Your task to perform on an android device: turn off picture-in-picture Image 0: 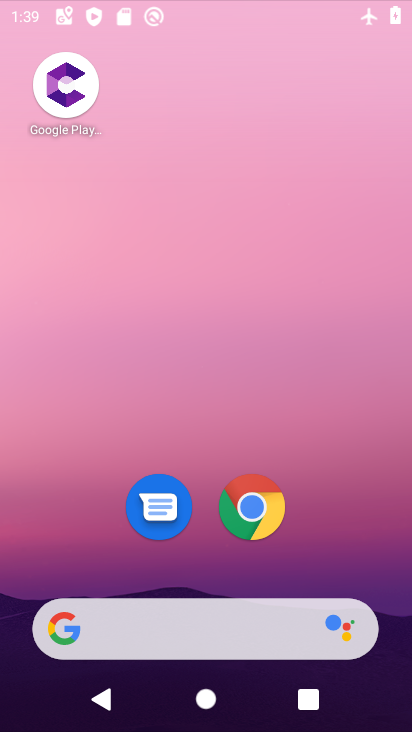
Step 0: click (238, 166)
Your task to perform on an android device: turn off picture-in-picture Image 1: 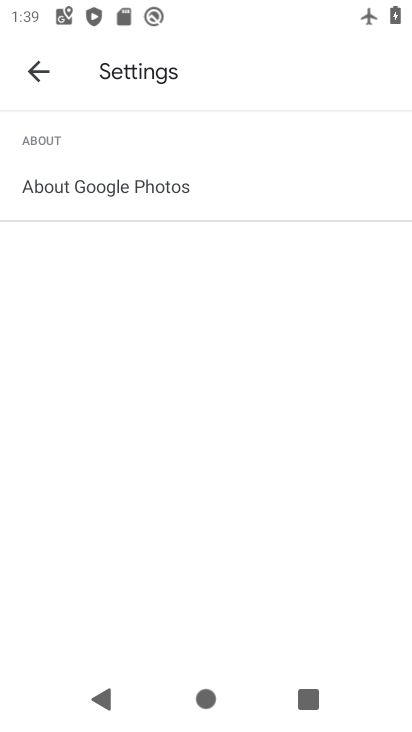
Step 1: click (32, 74)
Your task to perform on an android device: turn off picture-in-picture Image 2: 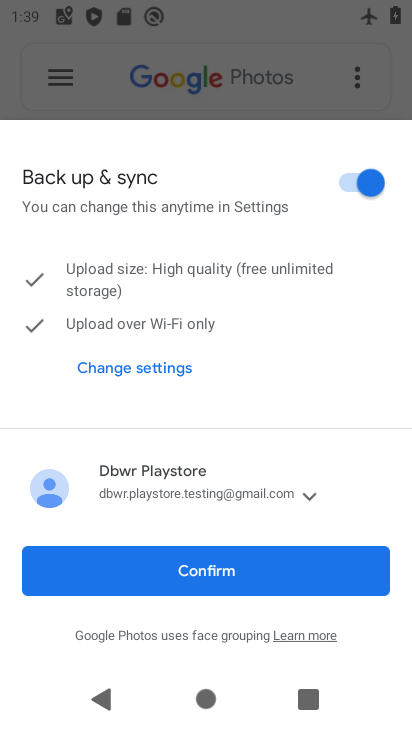
Step 2: press home button
Your task to perform on an android device: turn off picture-in-picture Image 3: 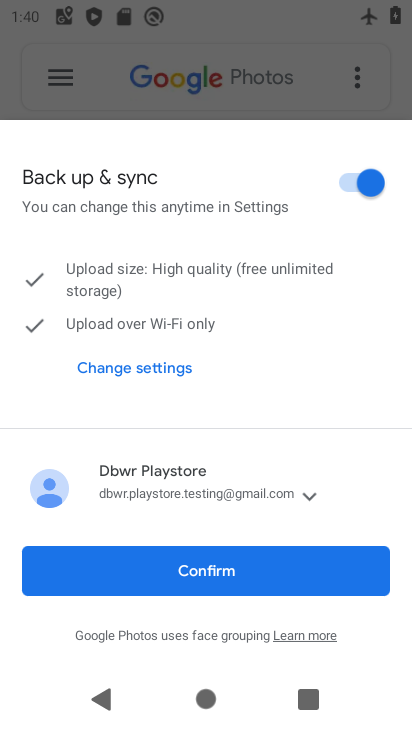
Step 3: press home button
Your task to perform on an android device: turn off picture-in-picture Image 4: 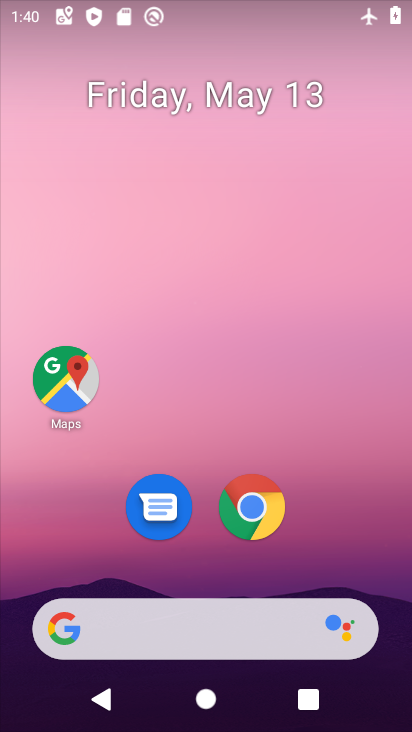
Step 4: drag from (340, 612) to (155, 120)
Your task to perform on an android device: turn off picture-in-picture Image 5: 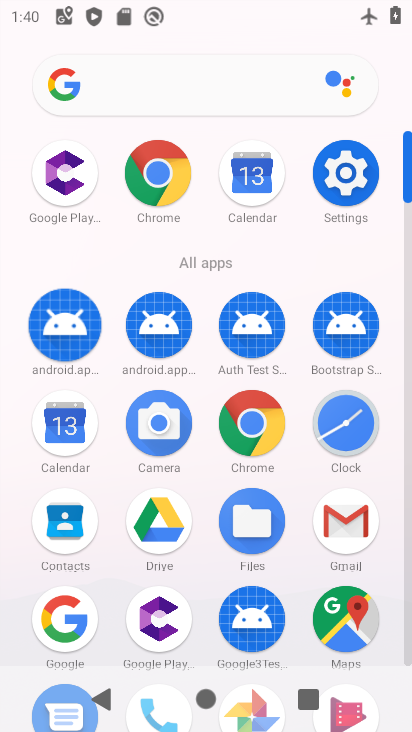
Step 5: click (247, 423)
Your task to perform on an android device: turn off picture-in-picture Image 6: 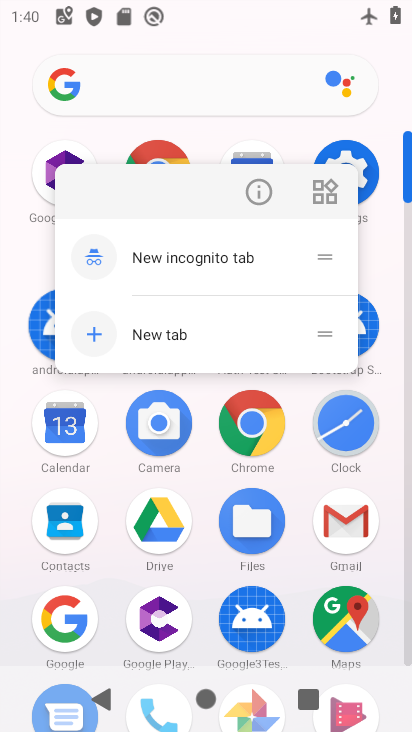
Step 6: click (260, 191)
Your task to perform on an android device: turn off picture-in-picture Image 7: 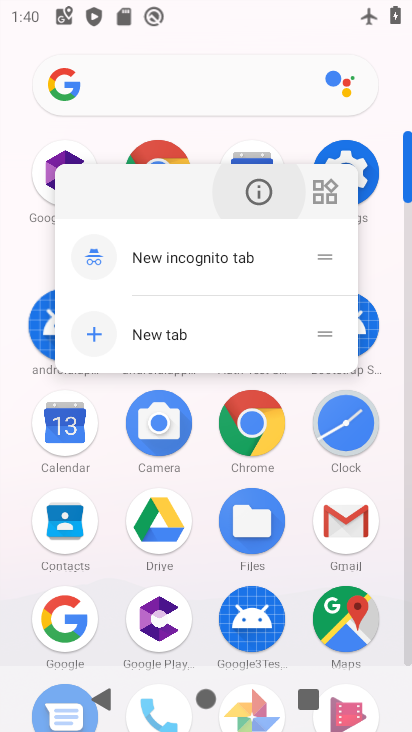
Step 7: click (260, 191)
Your task to perform on an android device: turn off picture-in-picture Image 8: 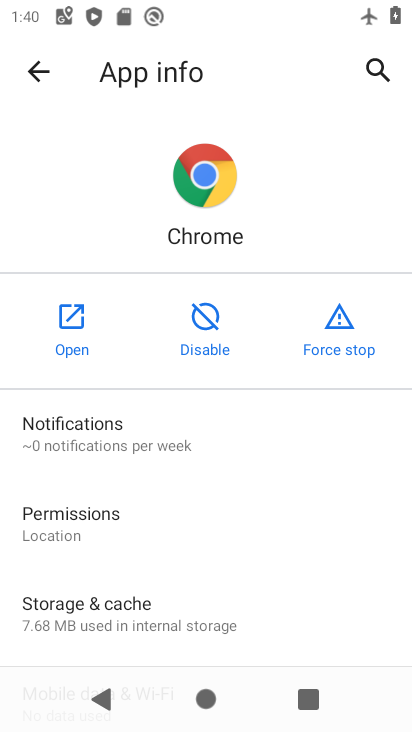
Step 8: drag from (239, 600) to (239, 183)
Your task to perform on an android device: turn off picture-in-picture Image 9: 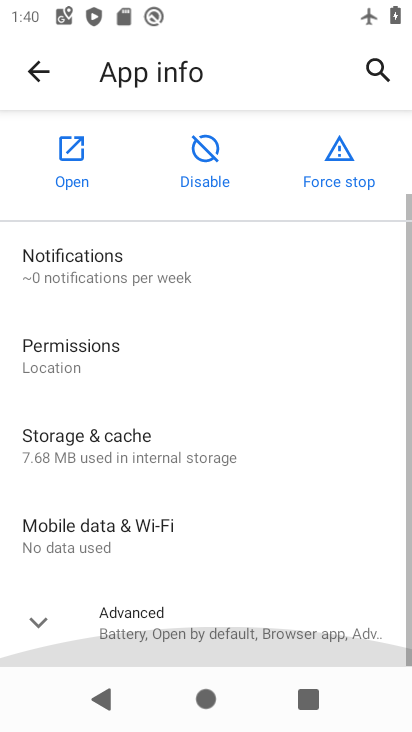
Step 9: drag from (241, 460) to (203, 164)
Your task to perform on an android device: turn off picture-in-picture Image 10: 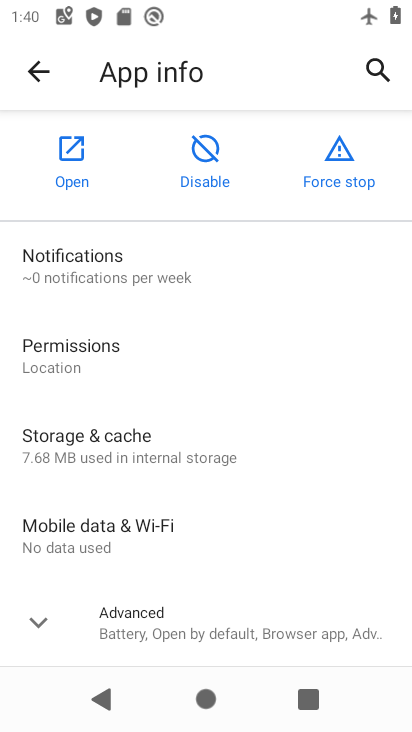
Step 10: click (153, 615)
Your task to perform on an android device: turn off picture-in-picture Image 11: 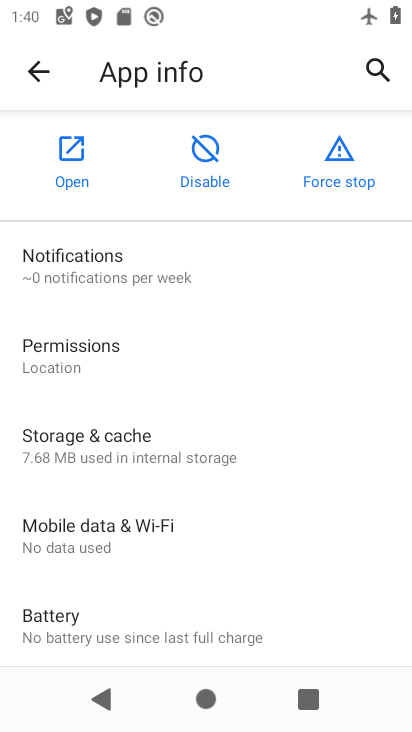
Step 11: click (67, 632)
Your task to perform on an android device: turn off picture-in-picture Image 12: 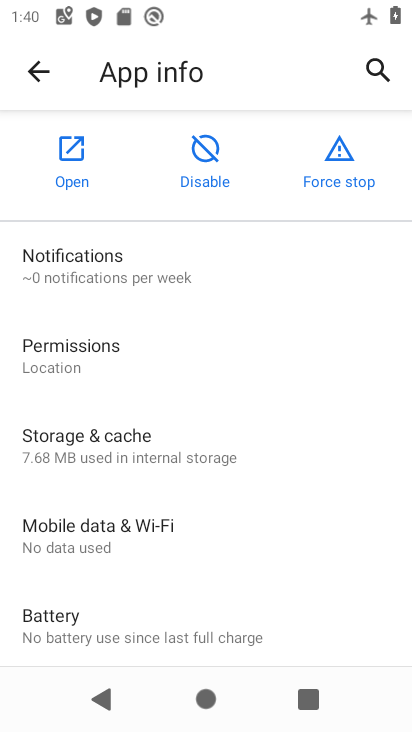
Step 12: click (67, 632)
Your task to perform on an android device: turn off picture-in-picture Image 13: 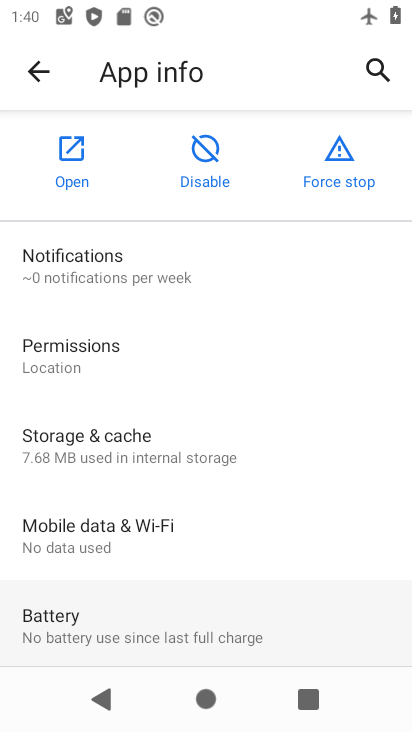
Step 13: click (67, 631)
Your task to perform on an android device: turn off picture-in-picture Image 14: 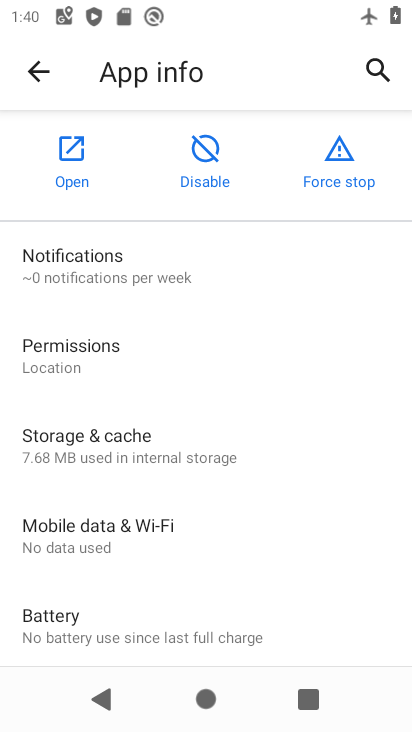
Step 14: click (68, 630)
Your task to perform on an android device: turn off picture-in-picture Image 15: 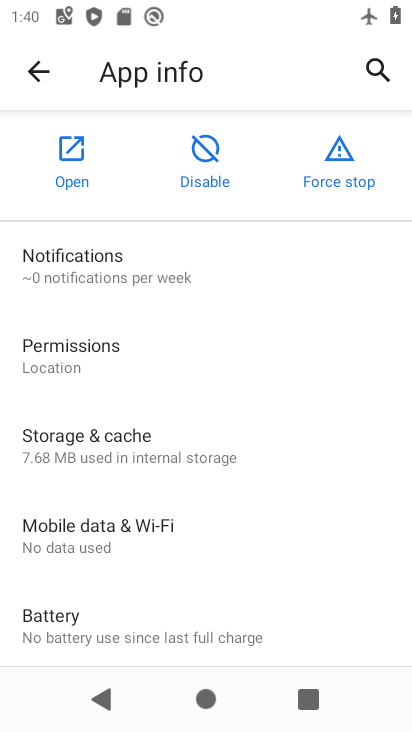
Step 15: click (68, 630)
Your task to perform on an android device: turn off picture-in-picture Image 16: 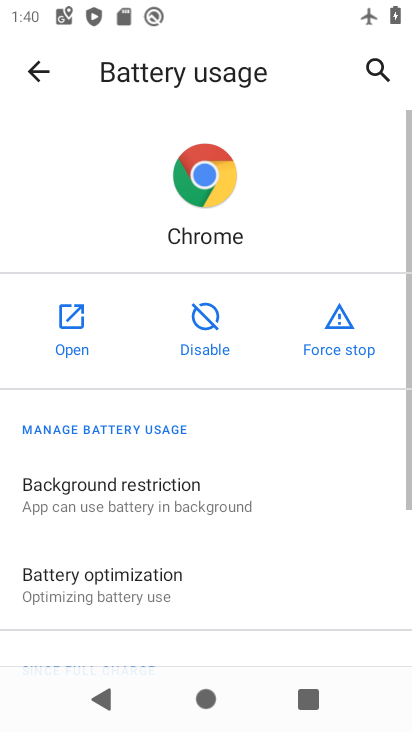
Step 16: drag from (156, 540) to (101, 188)
Your task to perform on an android device: turn off picture-in-picture Image 17: 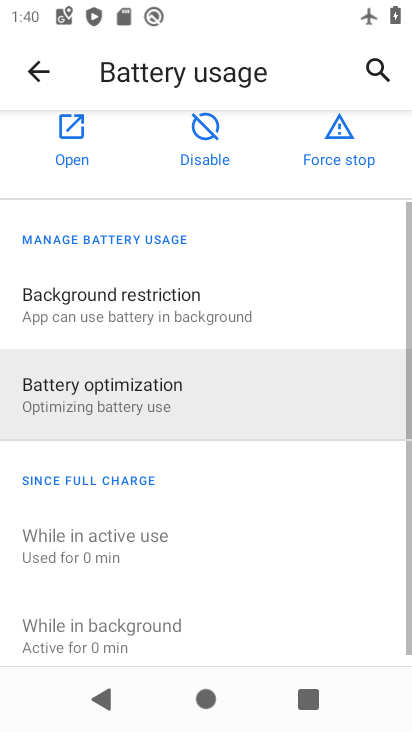
Step 17: drag from (193, 447) to (147, 189)
Your task to perform on an android device: turn off picture-in-picture Image 18: 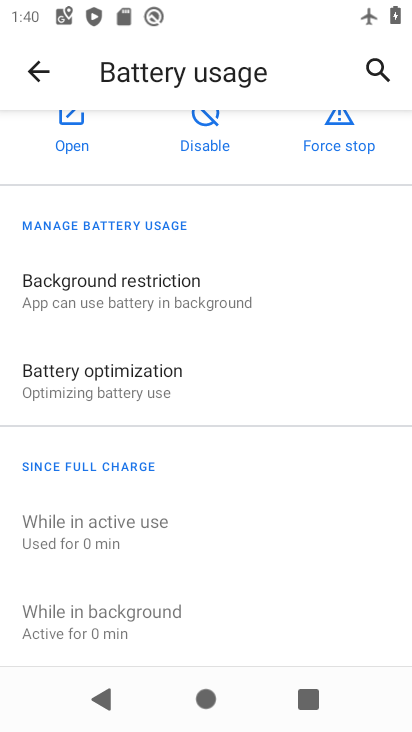
Step 18: drag from (103, 596) to (51, 271)
Your task to perform on an android device: turn off picture-in-picture Image 19: 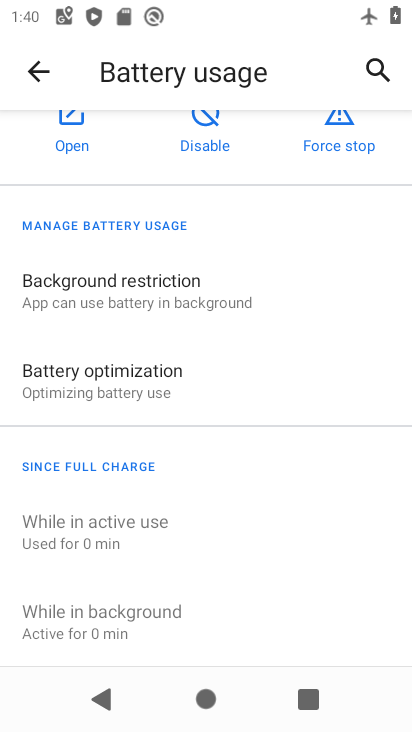
Step 19: drag from (83, 563) to (48, 202)
Your task to perform on an android device: turn off picture-in-picture Image 20: 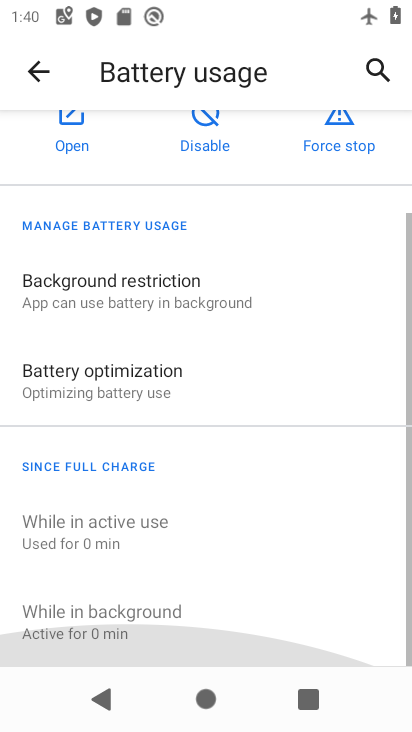
Step 20: drag from (139, 529) to (139, 175)
Your task to perform on an android device: turn off picture-in-picture Image 21: 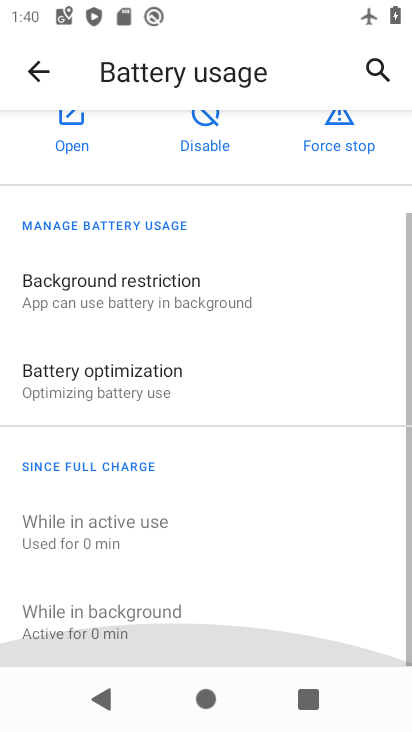
Step 21: drag from (159, 517) to (112, 241)
Your task to perform on an android device: turn off picture-in-picture Image 22: 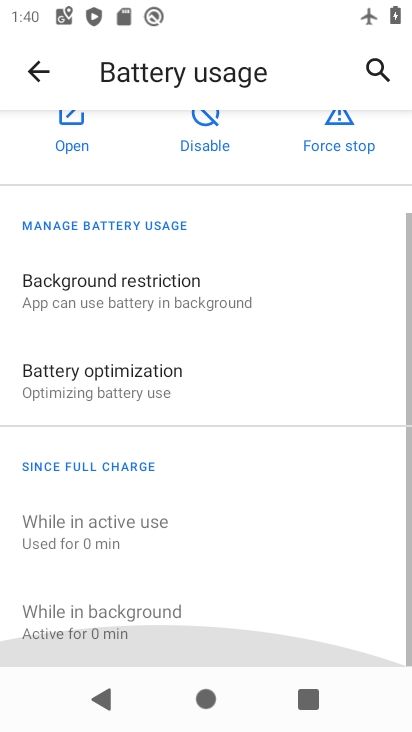
Step 22: drag from (91, 530) to (47, 146)
Your task to perform on an android device: turn off picture-in-picture Image 23: 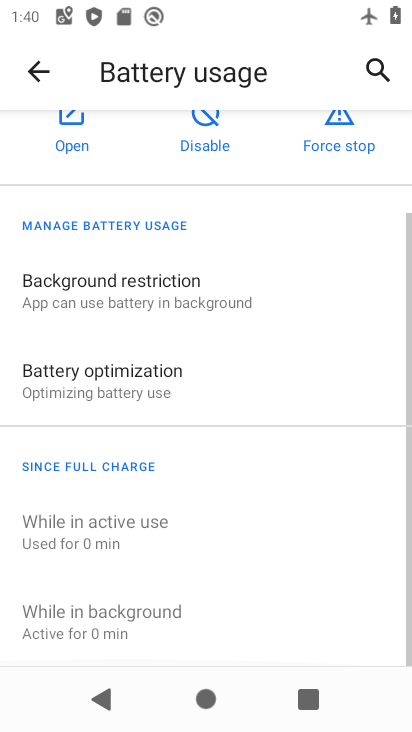
Step 23: click (32, 72)
Your task to perform on an android device: turn off picture-in-picture Image 24: 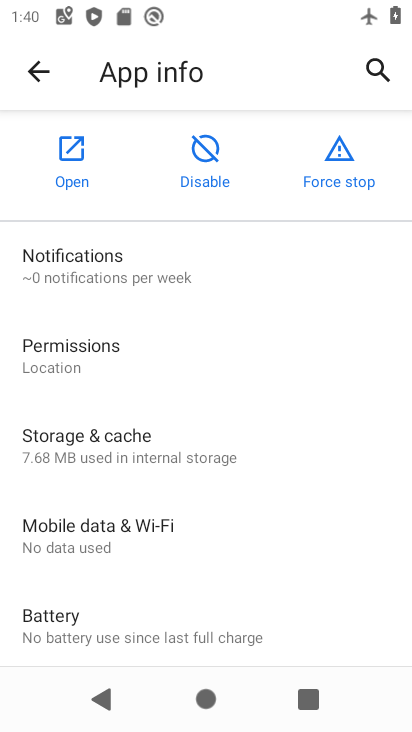
Step 24: click (34, 77)
Your task to perform on an android device: turn off picture-in-picture Image 25: 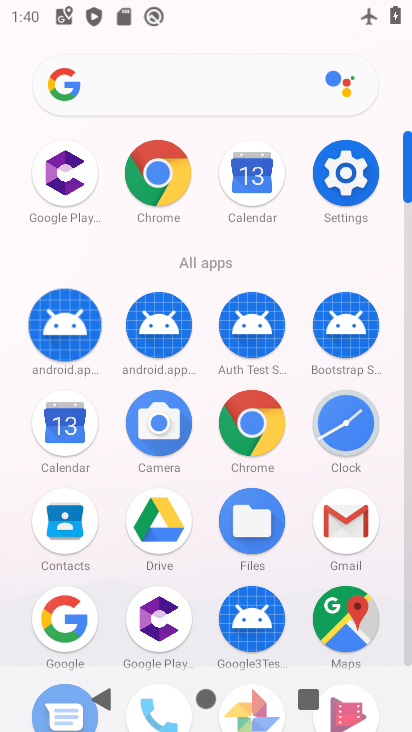
Step 25: click (160, 183)
Your task to perform on an android device: turn off picture-in-picture Image 26: 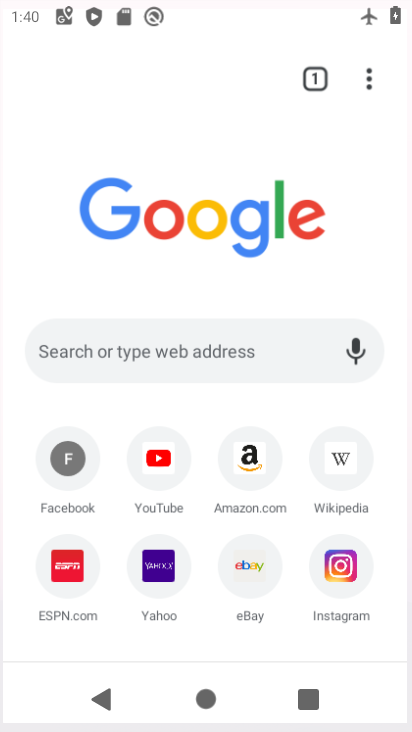
Step 26: click (160, 183)
Your task to perform on an android device: turn off picture-in-picture Image 27: 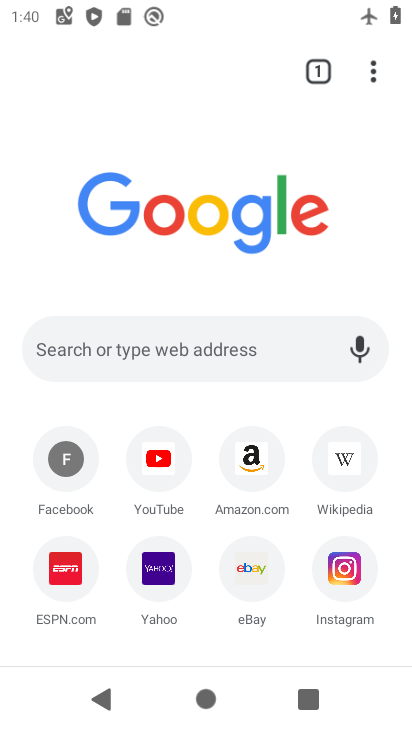
Step 27: press home button
Your task to perform on an android device: turn off picture-in-picture Image 28: 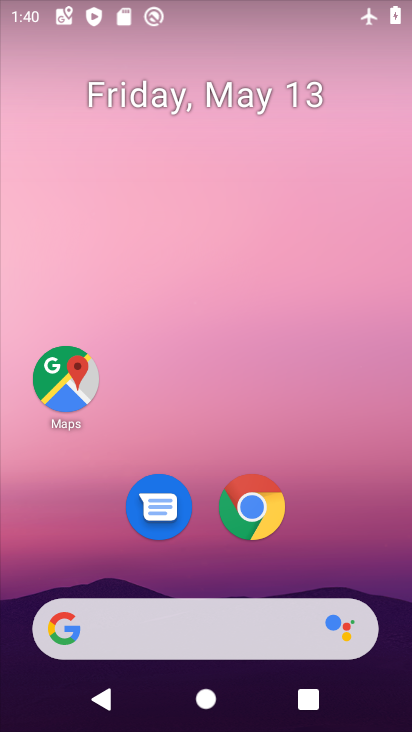
Step 28: drag from (319, 578) to (252, 252)
Your task to perform on an android device: turn off picture-in-picture Image 29: 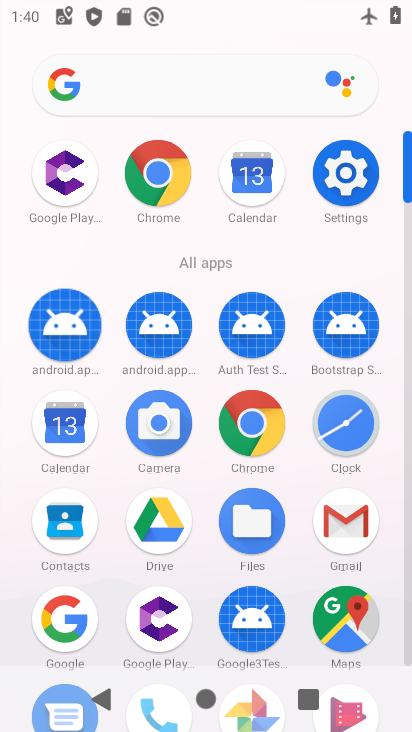
Step 29: drag from (149, 180) to (251, 403)
Your task to perform on an android device: turn off picture-in-picture Image 30: 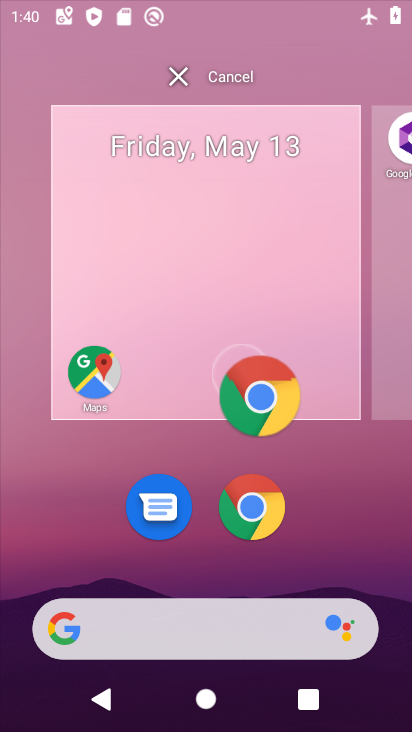
Step 30: drag from (252, 402) to (258, 141)
Your task to perform on an android device: turn off picture-in-picture Image 31: 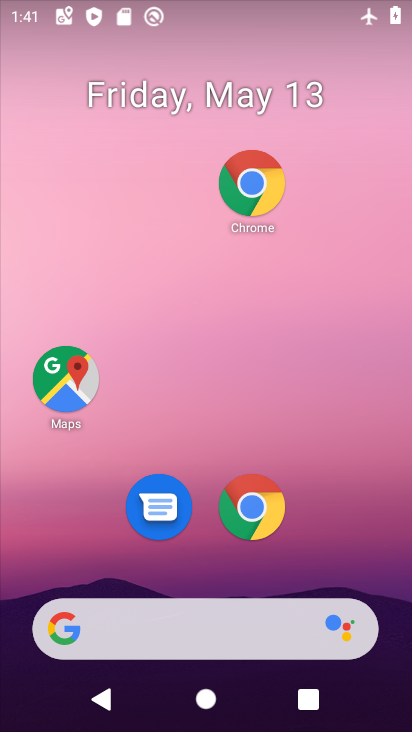
Step 31: drag from (256, 122) to (256, 188)
Your task to perform on an android device: turn off picture-in-picture Image 32: 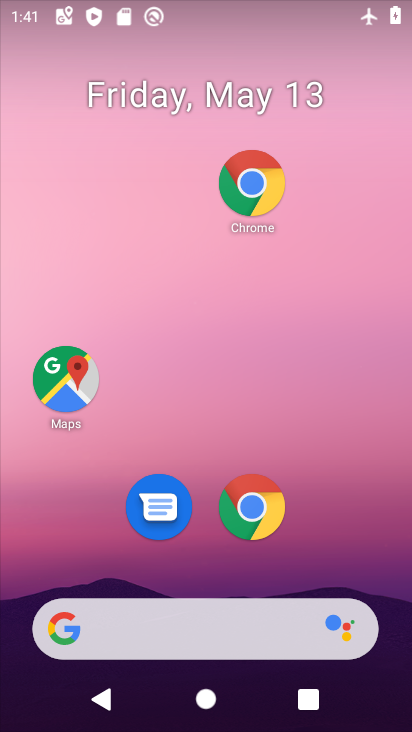
Step 32: click (256, 188)
Your task to perform on an android device: turn off picture-in-picture Image 33: 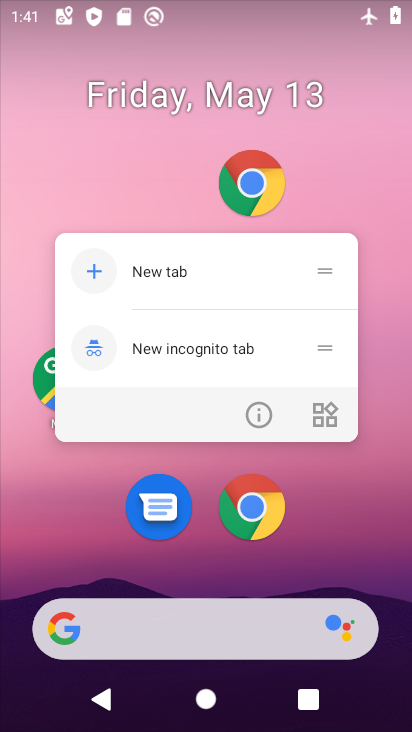
Step 33: click (251, 416)
Your task to perform on an android device: turn off picture-in-picture Image 34: 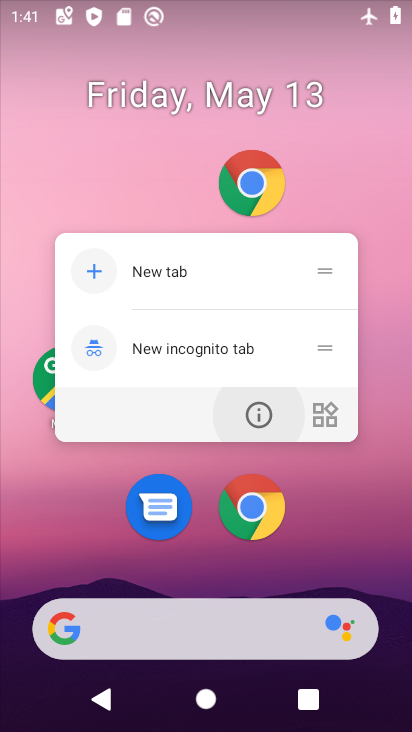
Step 34: click (254, 413)
Your task to perform on an android device: turn off picture-in-picture Image 35: 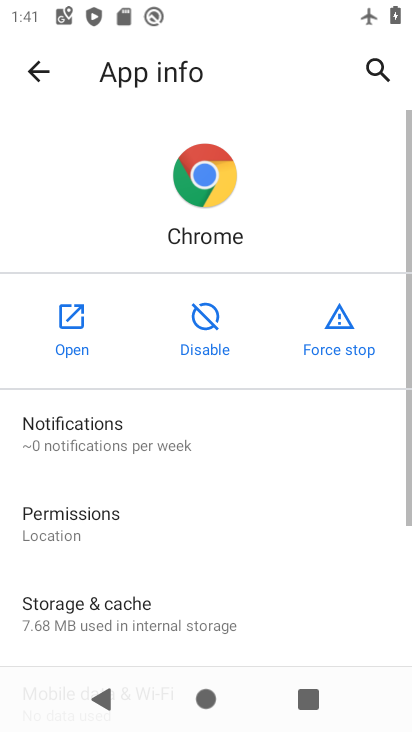
Step 35: drag from (130, 558) to (106, 240)
Your task to perform on an android device: turn off picture-in-picture Image 36: 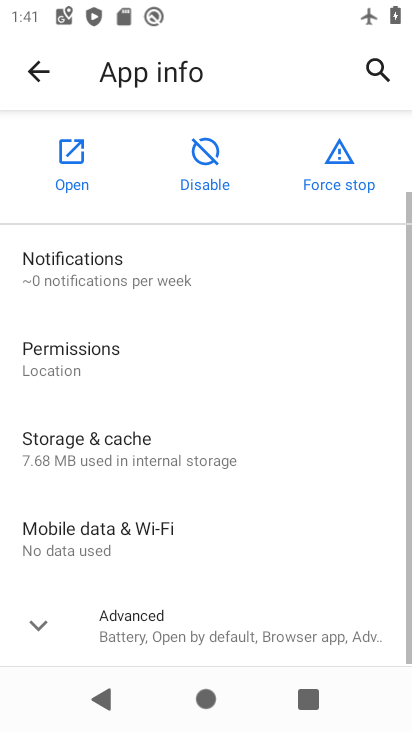
Step 36: drag from (200, 480) to (182, 130)
Your task to perform on an android device: turn off picture-in-picture Image 37: 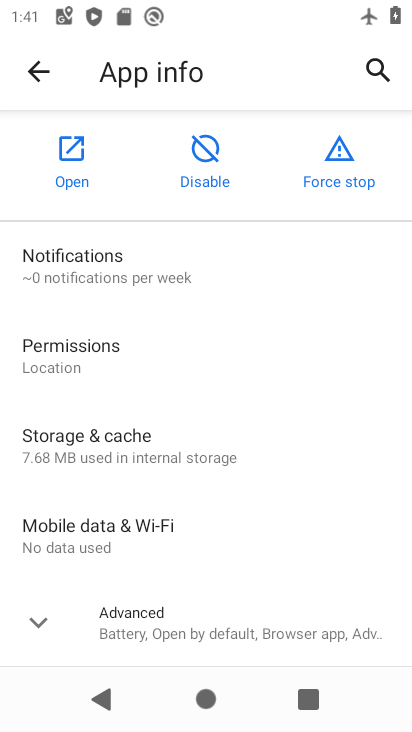
Step 37: click (130, 621)
Your task to perform on an android device: turn off picture-in-picture Image 38: 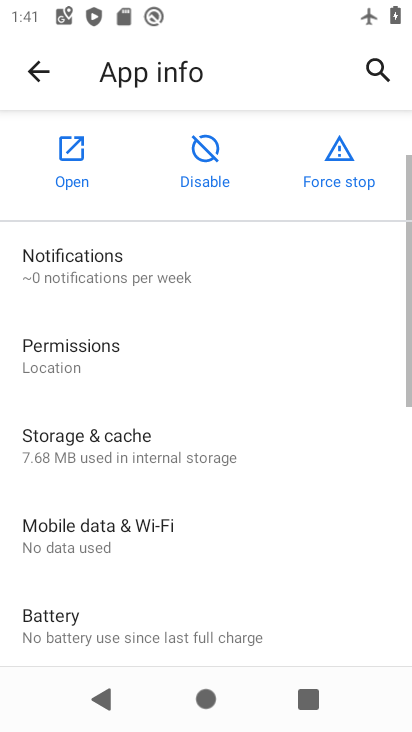
Step 38: drag from (125, 612) to (105, 275)
Your task to perform on an android device: turn off picture-in-picture Image 39: 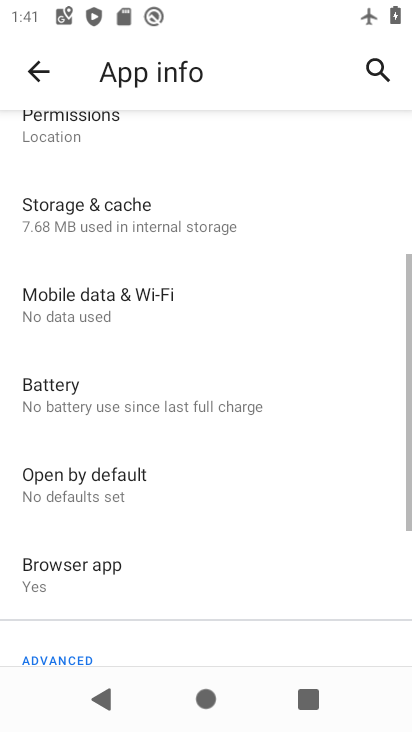
Step 39: drag from (158, 599) to (110, 232)
Your task to perform on an android device: turn off picture-in-picture Image 40: 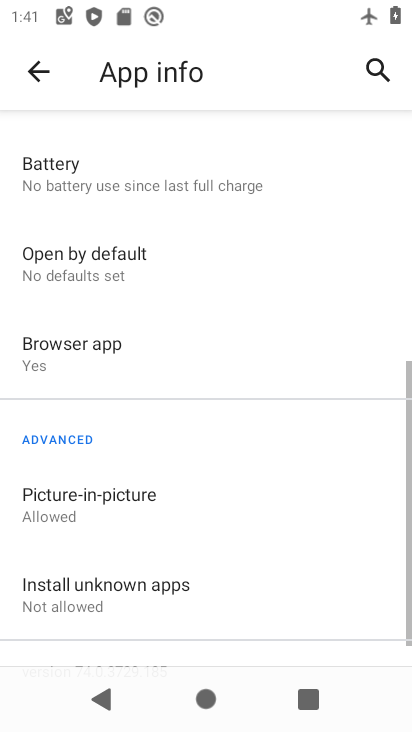
Step 40: drag from (168, 494) to (99, 176)
Your task to perform on an android device: turn off picture-in-picture Image 41: 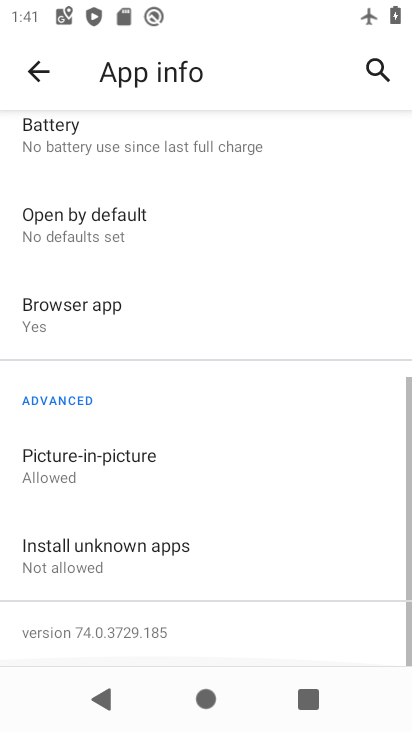
Step 41: drag from (122, 463) to (138, 141)
Your task to perform on an android device: turn off picture-in-picture Image 42: 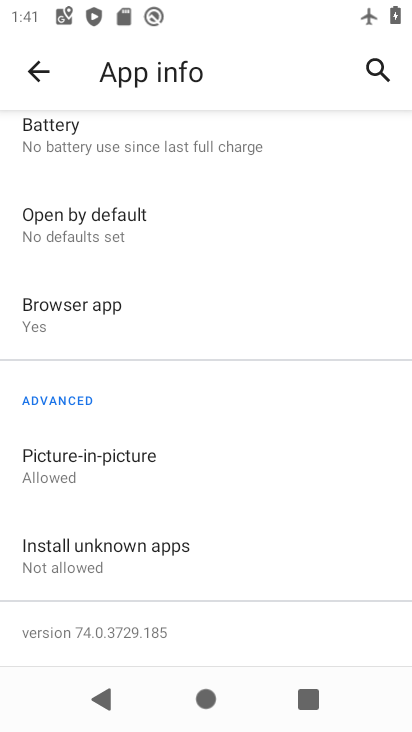
Step 42: click (59, 455)
Your task to perform on an android device: turn off picture-in-picture Image 43: 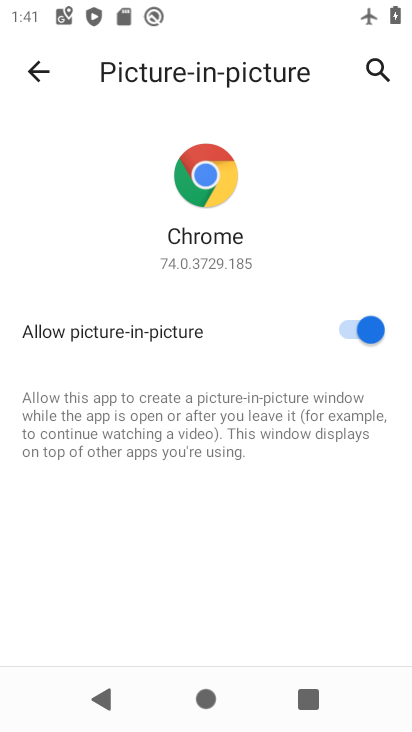
Step 43: click (365, 328)
Your task to perform on an android device: turn off picture-in-picture Image 44: 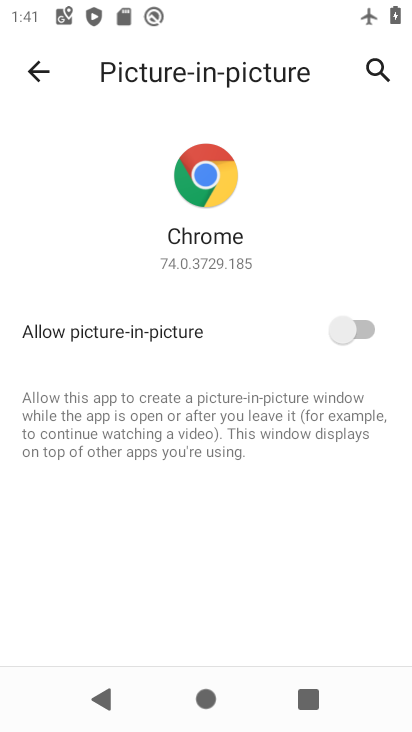
Step 44: task complete